Your task to perform on an android device: turn off notifications in google photos Image 0: 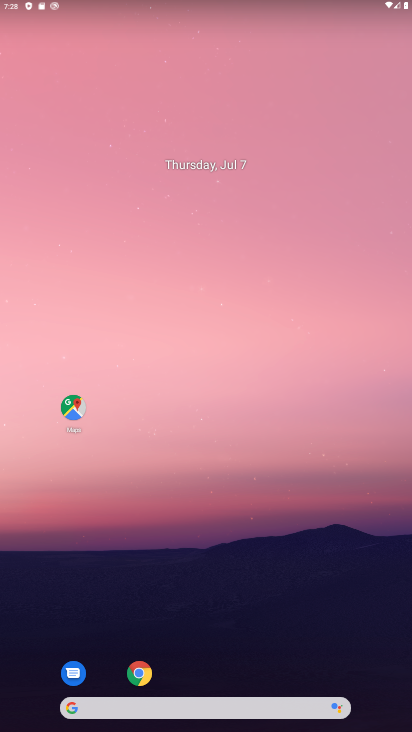
Step 0: drag from (236, 659) to (243, 91)
Your task to perform on an android device: turn off notifications in google photos Image 1: 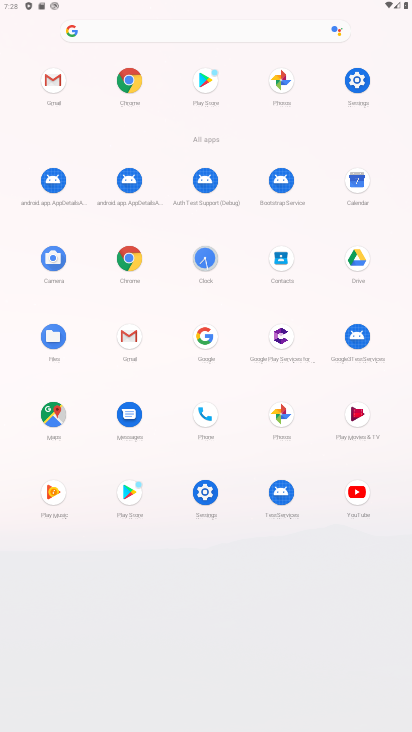
Step 1: click (279, 78)
Your task to perform on an android device: turn off notifications in google photos Image 2: 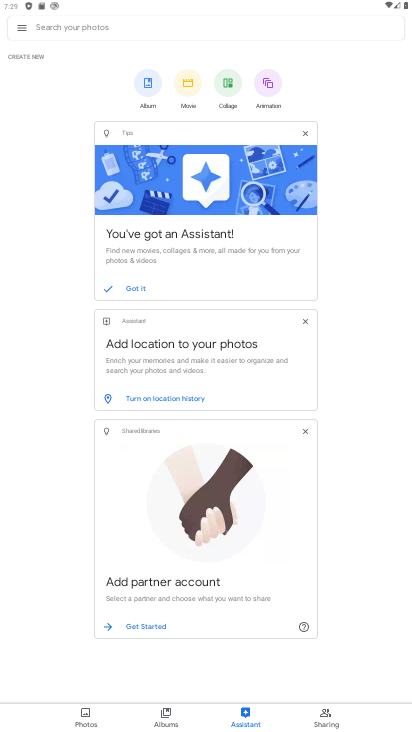
Step 2: click (21, 31)
Your task to perform on an android device: turn off notifications in google photos Image 3: 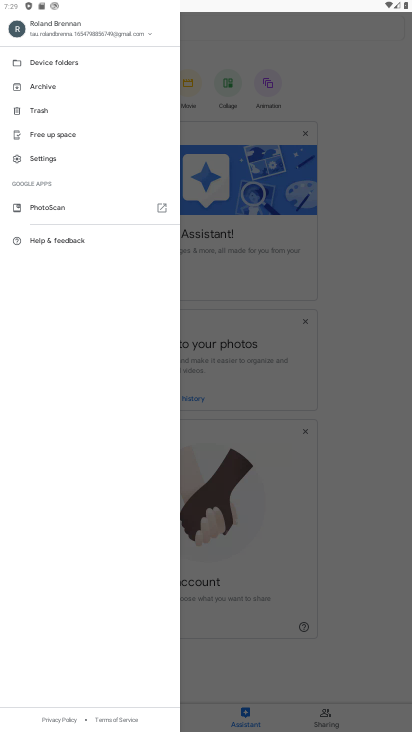
Step 3: click (53, 161)
Your task to perform on an android device: turn off notifications in google photos Image 4: 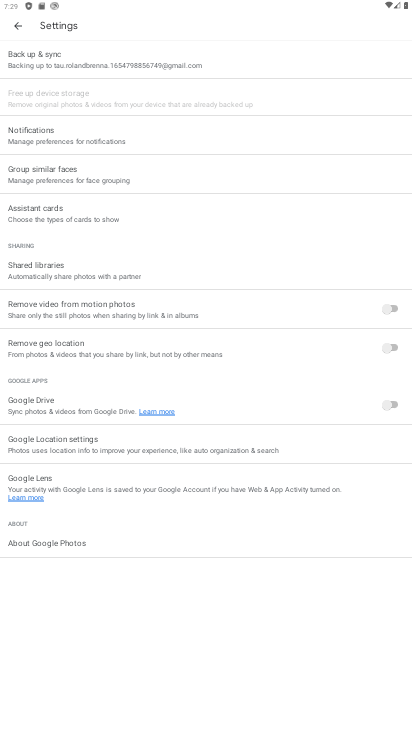
Step 4: click (68, 141)
Your task to perform on an android device: turn off notifications in google photos Image 5: 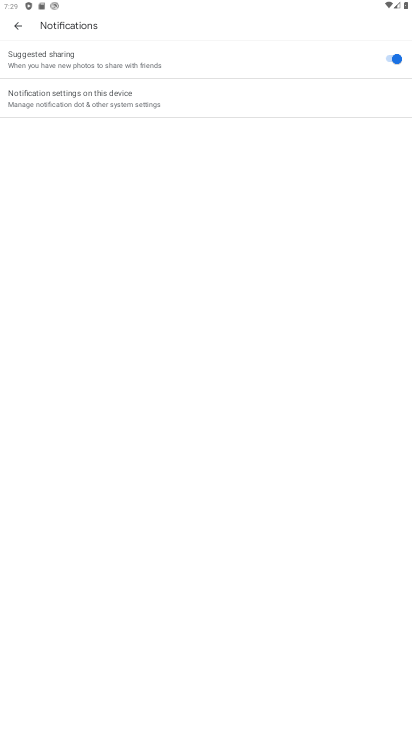
Step 5: click (92, 104)
Your task to perform on an android device: turn off notifications in google photos Image 6: 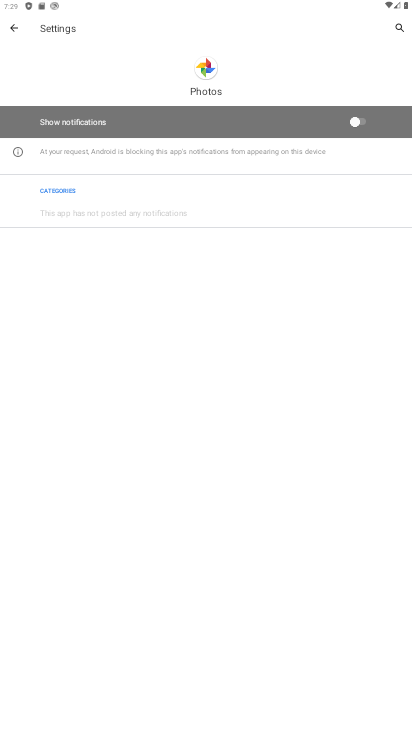
Step 6: task complete